Your task to perform on an android device: delete browsing data in the chrome app Image 0: 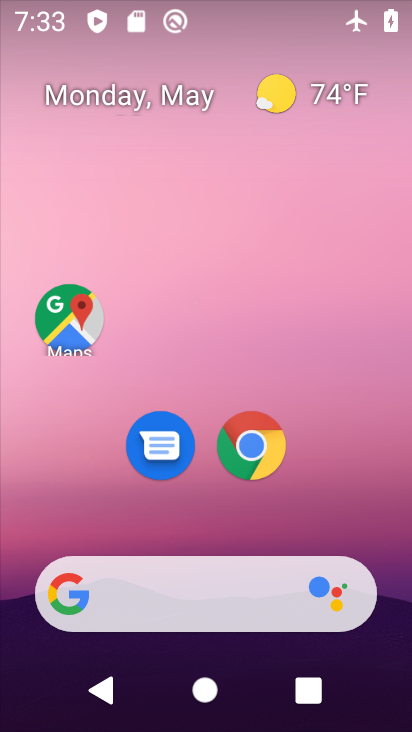
Step 0: click (249, 451)
Your task to perform on an android device: delete browsing data in the chrome app Image 1: 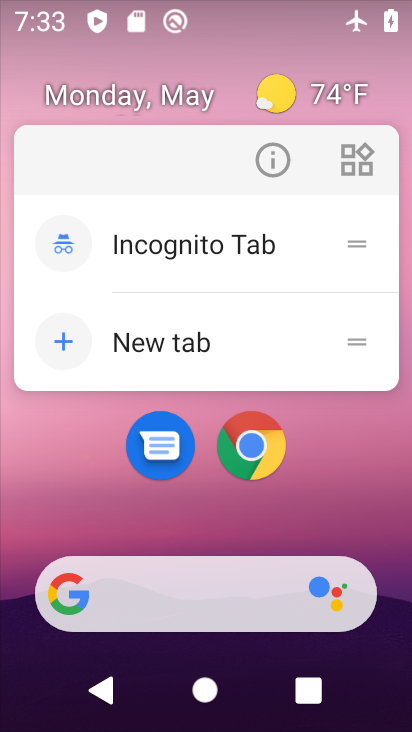
Step 1: click (257, 466)
Your task to perform on an android device: delete browsing data in the chrome app Image 2: 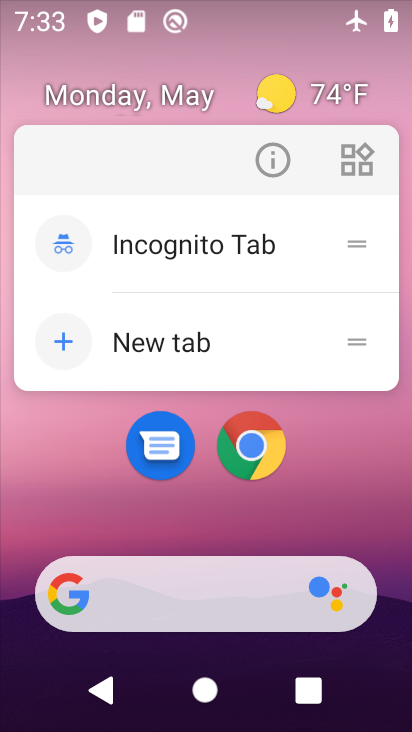
Step 2: click (257, 467)
Your task to perform on an android device: delete browsing data in the chrome app Image 3: 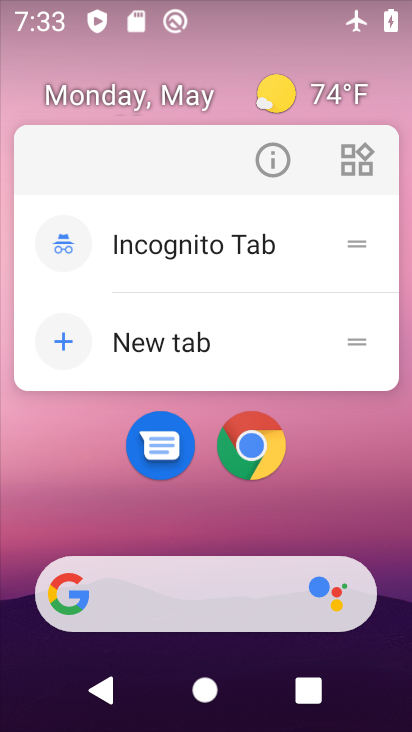
Step 3: click (259, 461)
Your task to perform on an android device: delete browsing data in the chrome app Image 4: 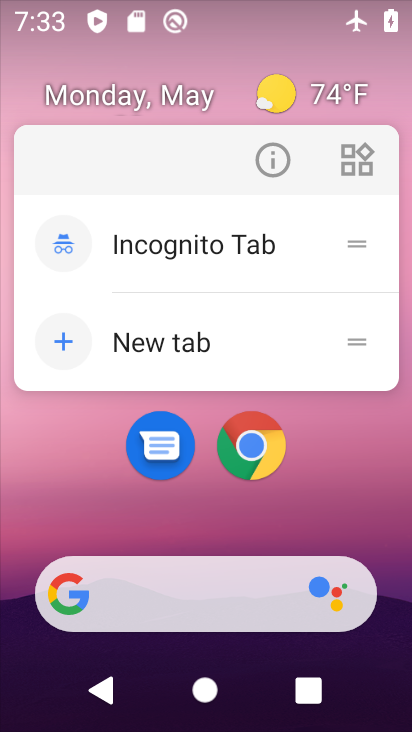
Step 4: click (256, 470)
Your task to perform on an android device: delete browsing data in the chrome app Image 5: 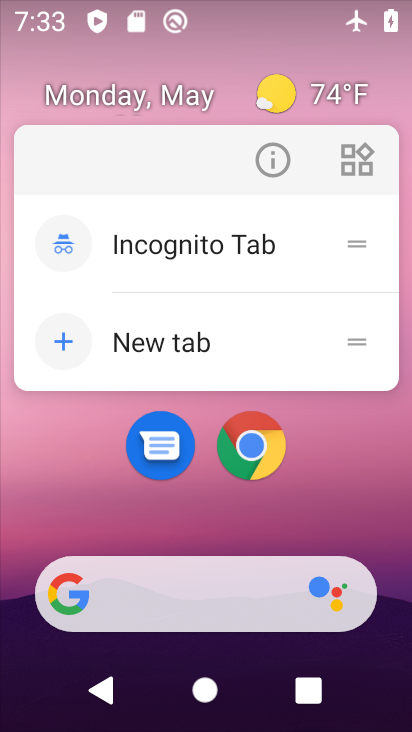
Step 5: click (247, 451)
Your task to perform on an android device: delete browsing data in the chrome app Image 6: 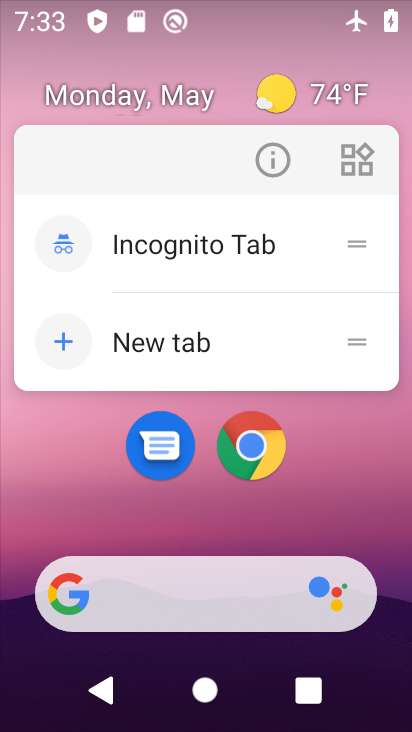
Step 6: drag from (187, 607) to (280, 48)
Your task to perform on an android device: delete browsing data in the chrome app Image 7: 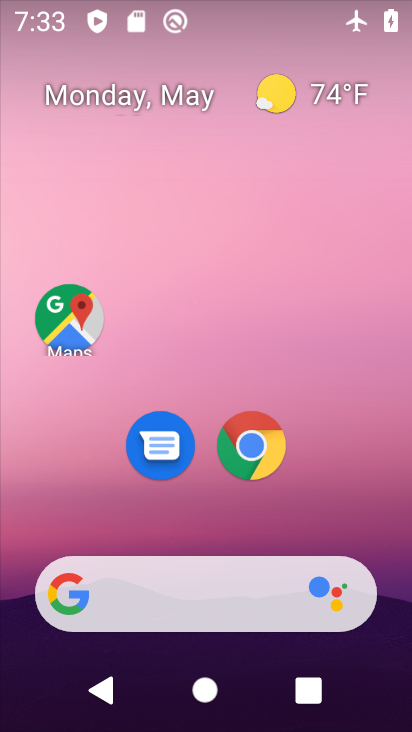
Step 7: drag from (199, 585) to (312, 66)
Your task to perform on an android device: delete browsing data in the chrome app Image 8: 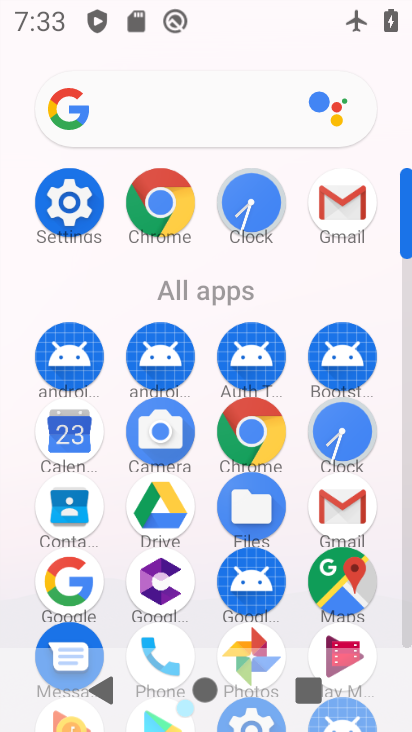
Step 8: click (175, 212)
Your task to perform on an android device: delete browsing data in the chrome app Image 9: 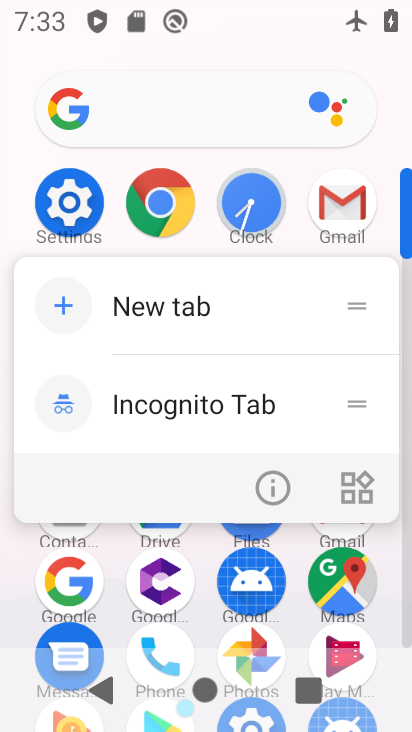
Step 9: click (164, 211)
Your task to perform on an android device: delete browsing data in the chrome app Image 10: 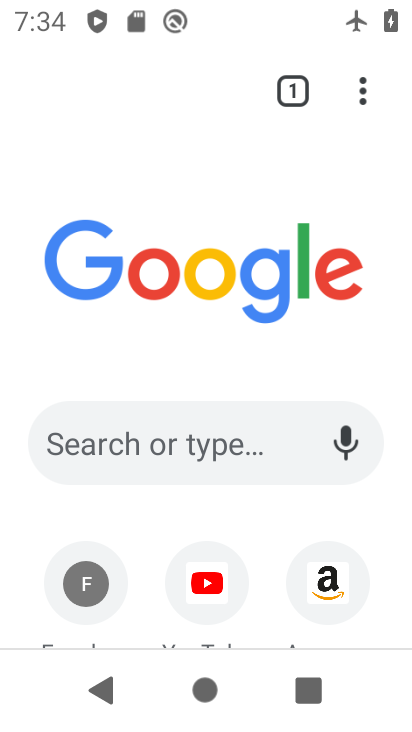
Step 10: drag from (364, 91) to (188, 477)
Your task to perform on an android device: delete browsing data in the chrome app Image 11: 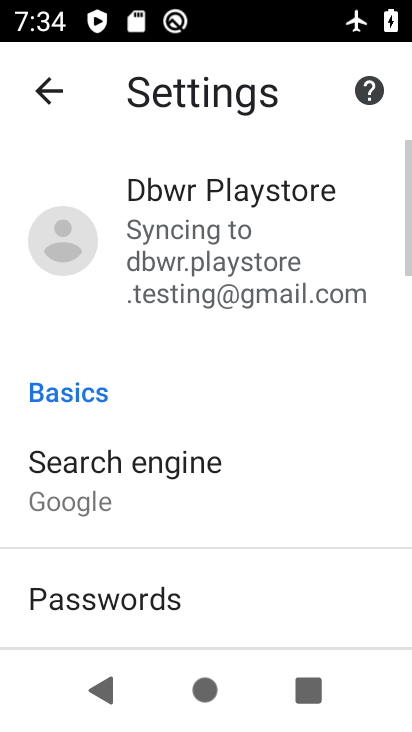
Step 11: drag from (249, 571) to (395, 140)
Your task to perform on an android device: delete browsing data in the chrome app Image 12: 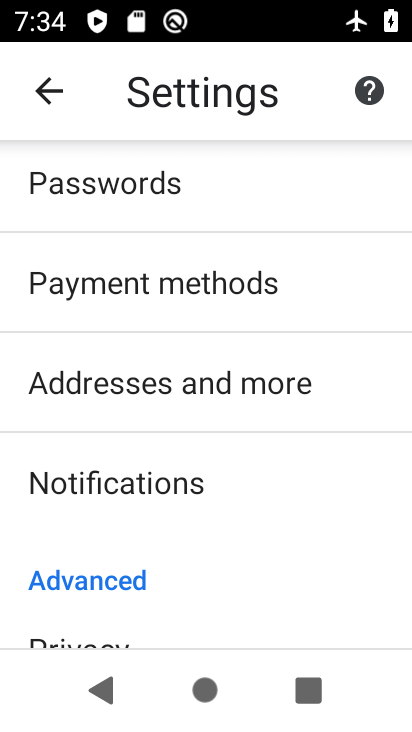
Step 12: drag from (203, 563) to (365, 196)
Your task to perform on an android device: delete browsing data in the chrome app Image 13: 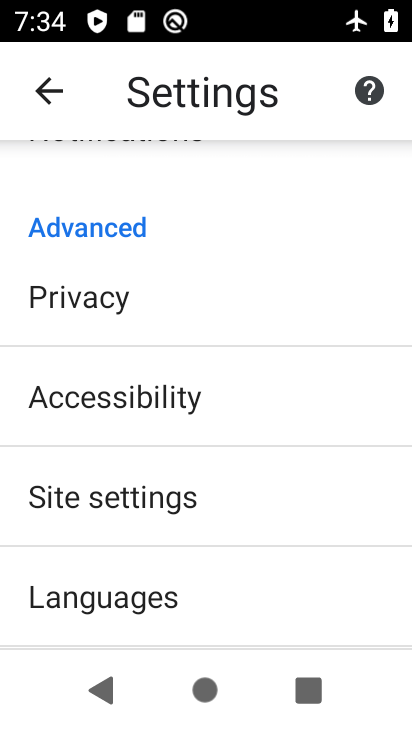
Step 13: click (110, 302)
Your task to perform on an android device: delete browsing data in the chrome app Image 14: 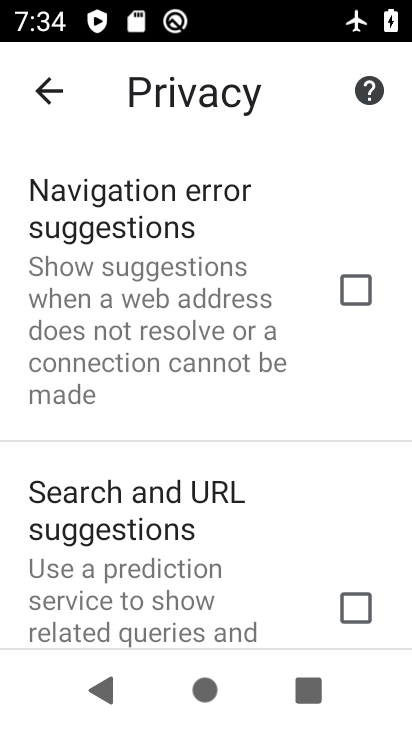
Step 14: drag from (196, 618) to (353, 70)
Your task to perform on an android device: delete browsing data in the chrome app Image 15: 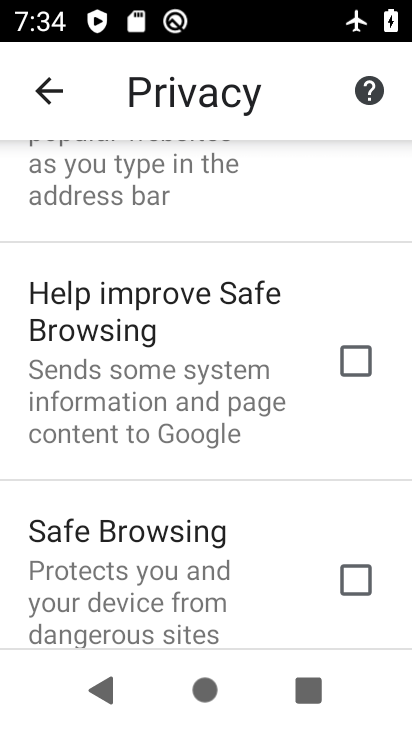
Step 15: drag from (173, 614) to (383, 79)
Your task to perform on an android device: delete browsing data in the chrome app Image 16: 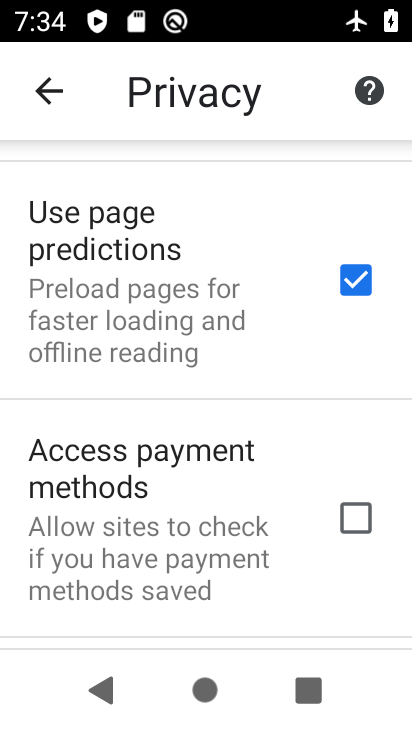
Step 16: drag from (217, 573) to (360, 46)
Your task to perform on an android device: delete browsing data in the chrome app Image 17: 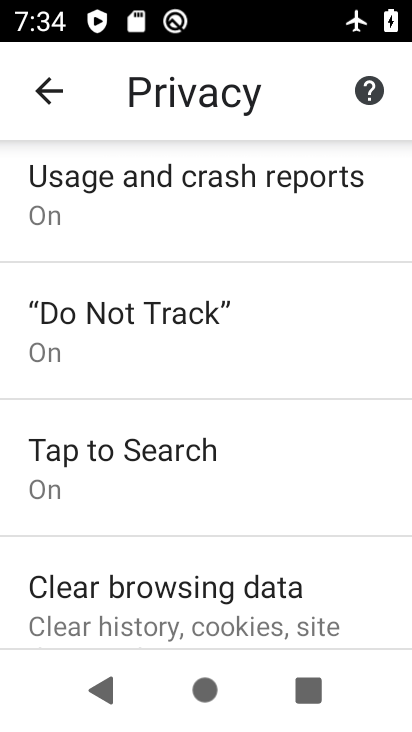
Step 17: drag from (266, 542) to (394, 40)
Your task to perform on an android device: delete browsing data in the chrome app Image 18: 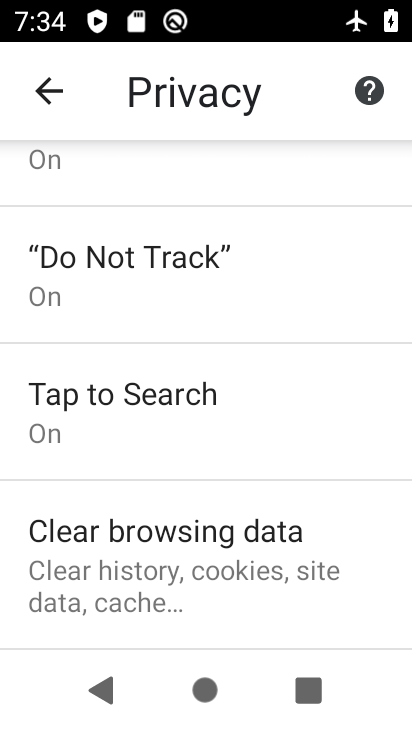
Step 18: click (253, 545)
Your task to perform on an android device: delete browsing data in the chrome app Image 19: 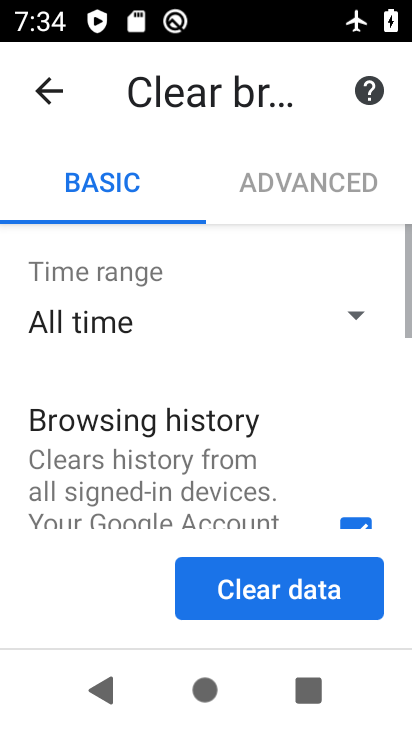
Step 19: drag from (240, 492) to (355, 43)
Your task to perform on an android device: delete browsing data in the chrome app Image 20: 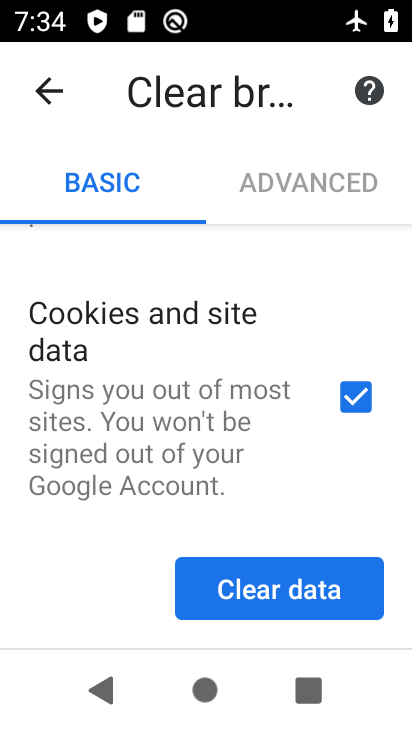
Step 20: click (297, 590)
Your task to perform on an android device: delete browsing data in the chrome app Image 21: 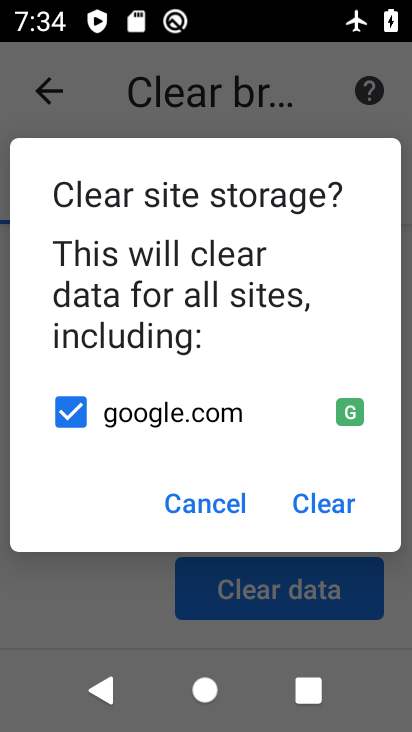
Step 21: click (339, 504)
Your task to perform on an android device: delete browsing data in the chrome app Image 22: 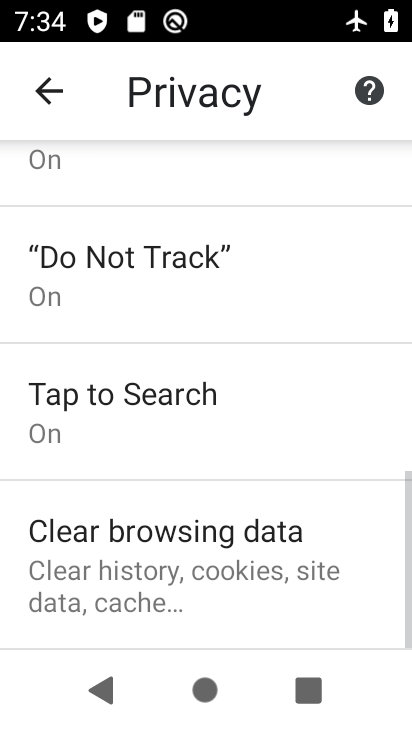
Step 22: task complete